Your task to perform on an android device: Check the weather Image 0: 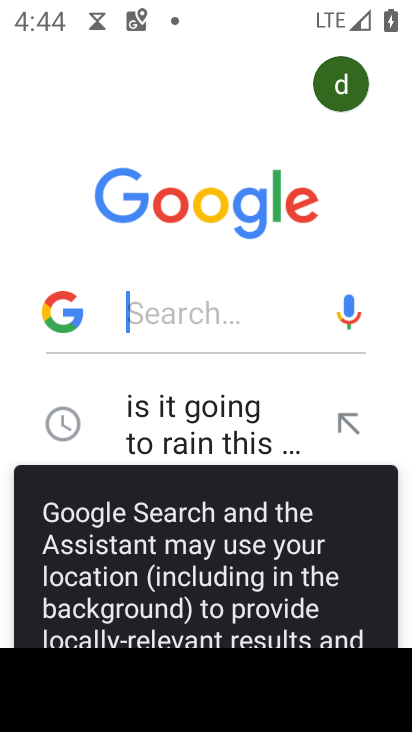
Step 0: press home button
Your task to perform on an android device: Check the weather Image 1: 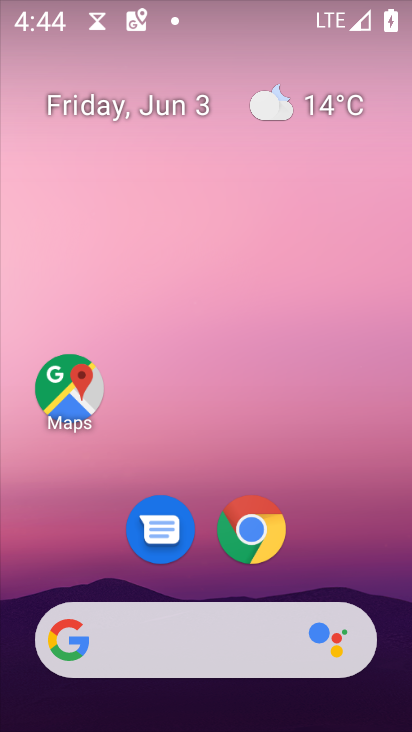
Step 1: click (337, 109)
Your task to perform on an android device: Check the weather Image 2: 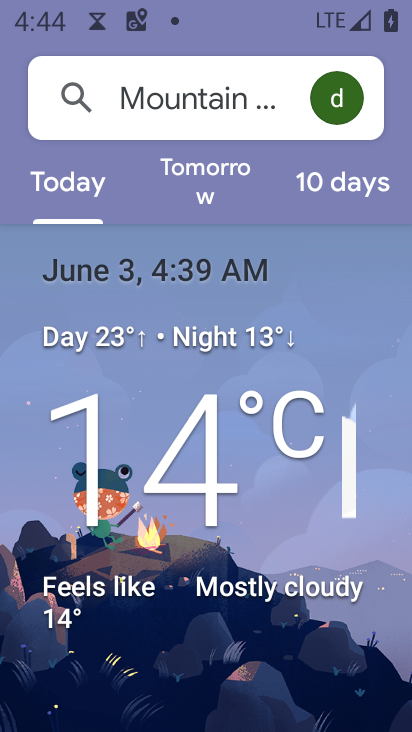
Step 2: task complete